Your task to perform on an android device: Open the web browser Image 0: 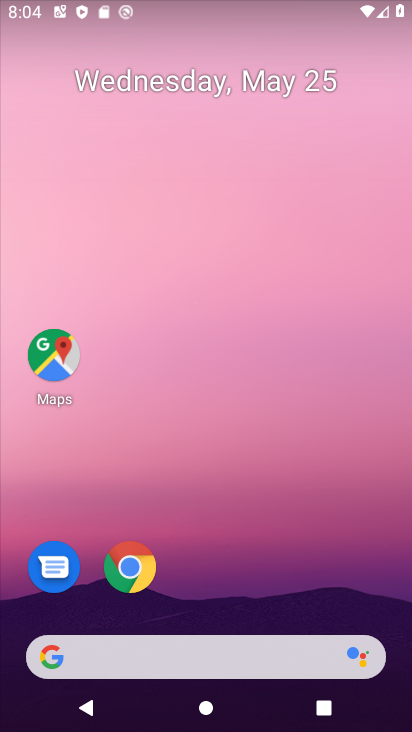
Step 0: click (140, 561)
Your task to perform on an android device: Open the web browser Image 1: 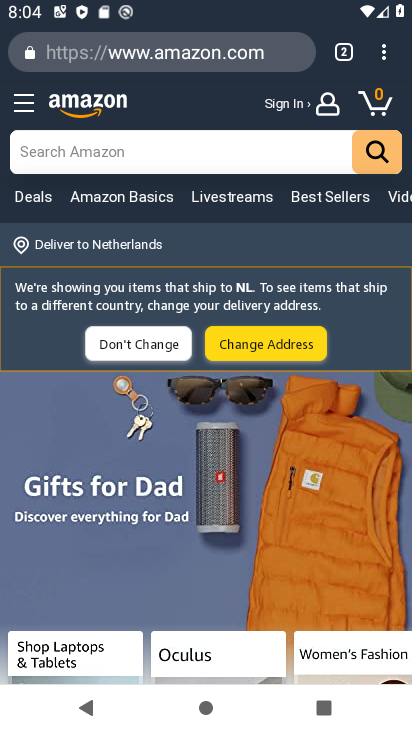
Step 1: task complete